Your task to perform on an android device: check battery use Image 0: 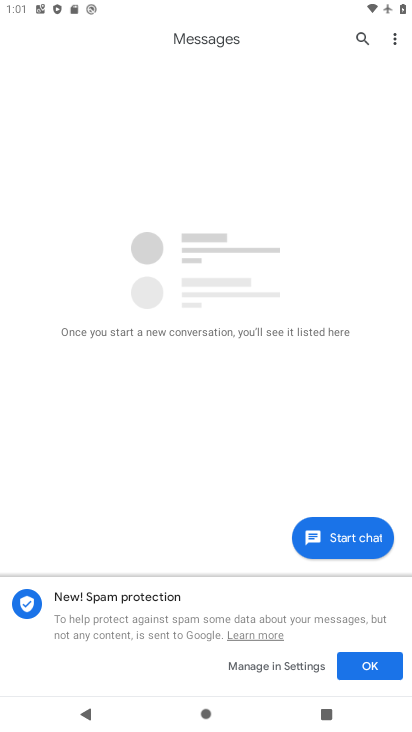
Step 0: press home button
Your task to perform on an android device: check battery use Image 1: 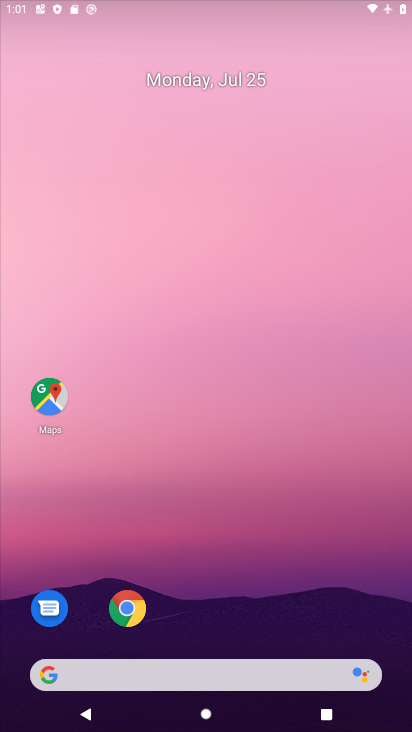
Step 1: drag from (198, 660) to (284, 121)
Your task to perform on an android device: check battery use Image 2: 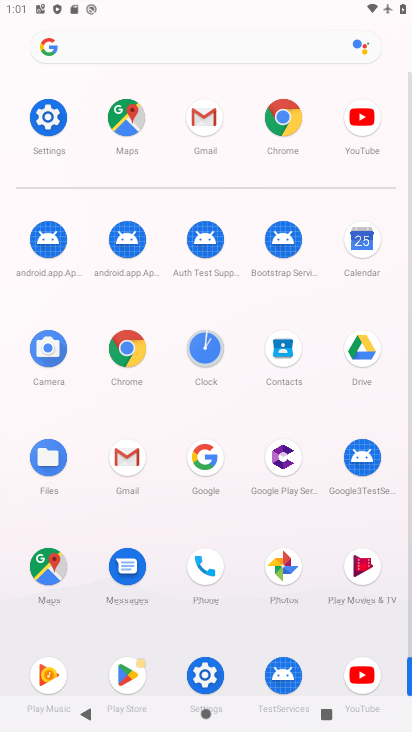
Step 2: click (34, 140)
Your task to perform on an android device: check battery use Image 3: 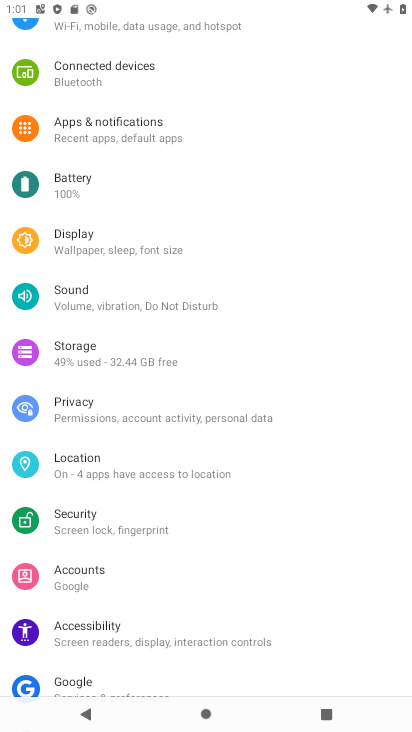
Step 3: click (103, 194)
Your task to perform on an android device: check battery use Image 4: 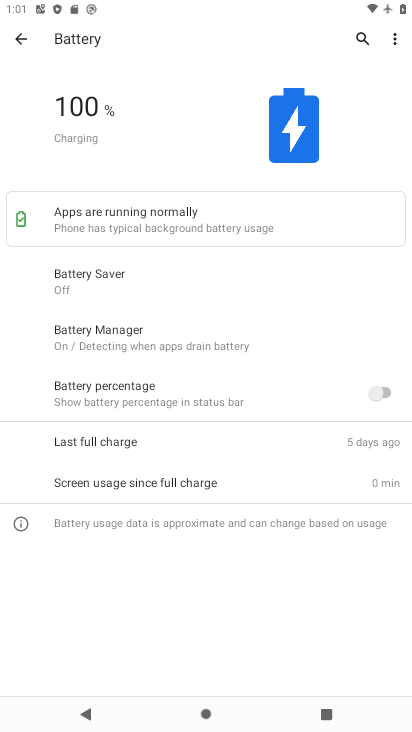
Step 4: task complete